Your task to perform on an android device: Open Youtube and go to the subscriptions tab Image 0: 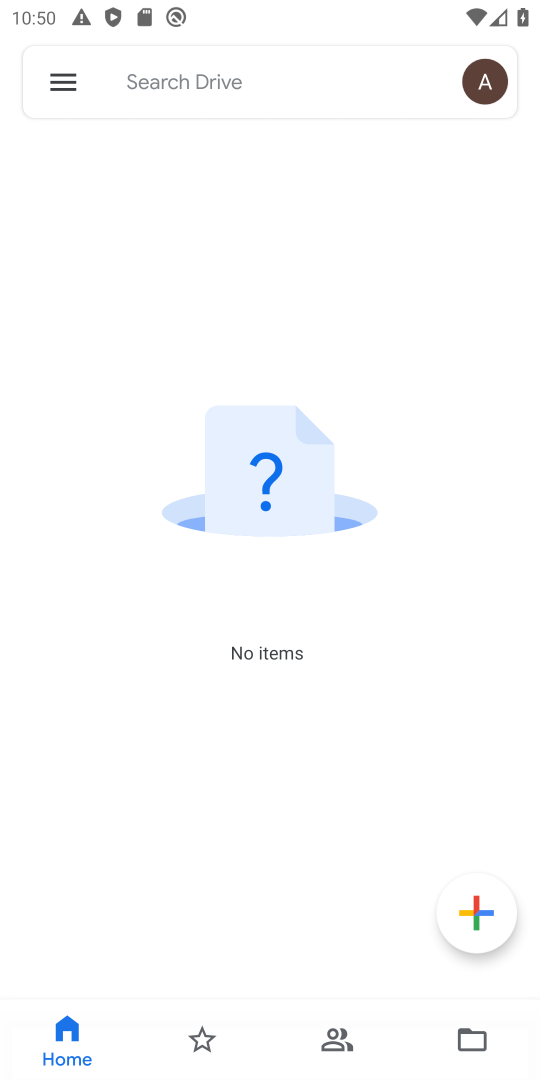
Step 0: press home button
Your task to perform on an android device: Open Youtube and go to the subscriptions tab Image 1: 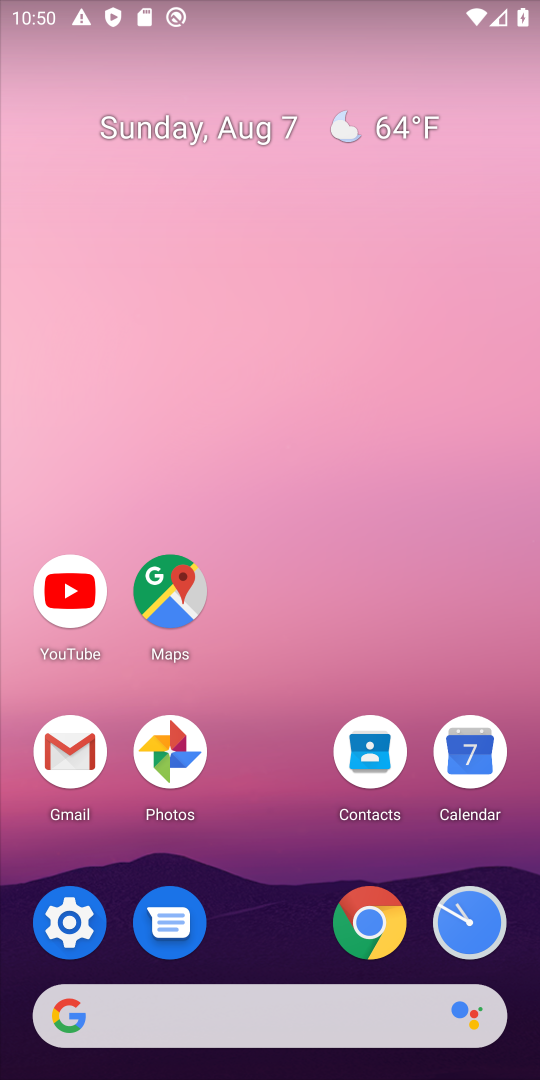
Step 1: click (51, 578)
Your task to perform on an android device: Open Youtube and go to the subscriptions tab Image 2: 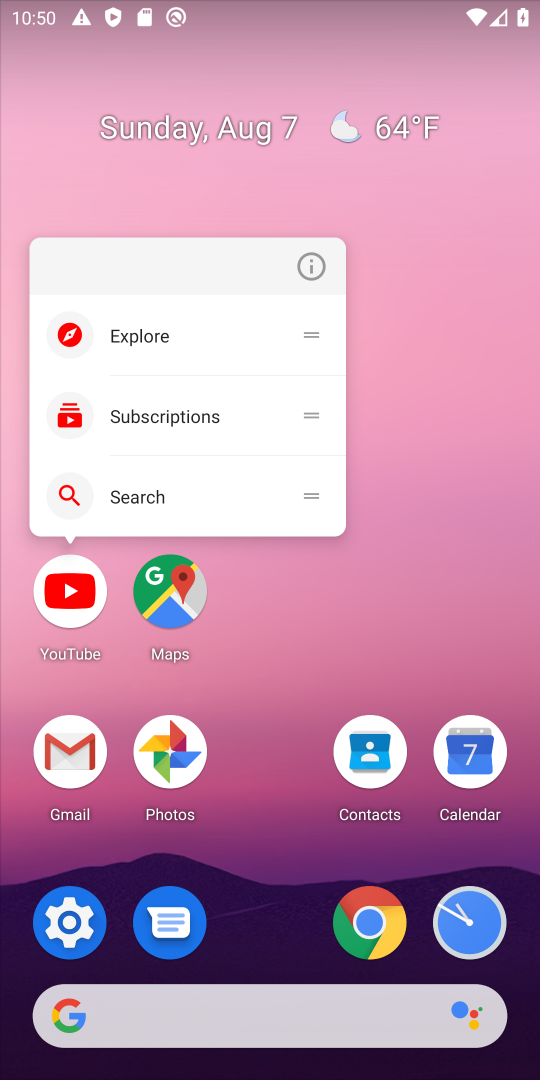
Step 2: click (56, 583)
Your task to perform on an android device: Open Youtube and go to the subscriptions tab Image 3: 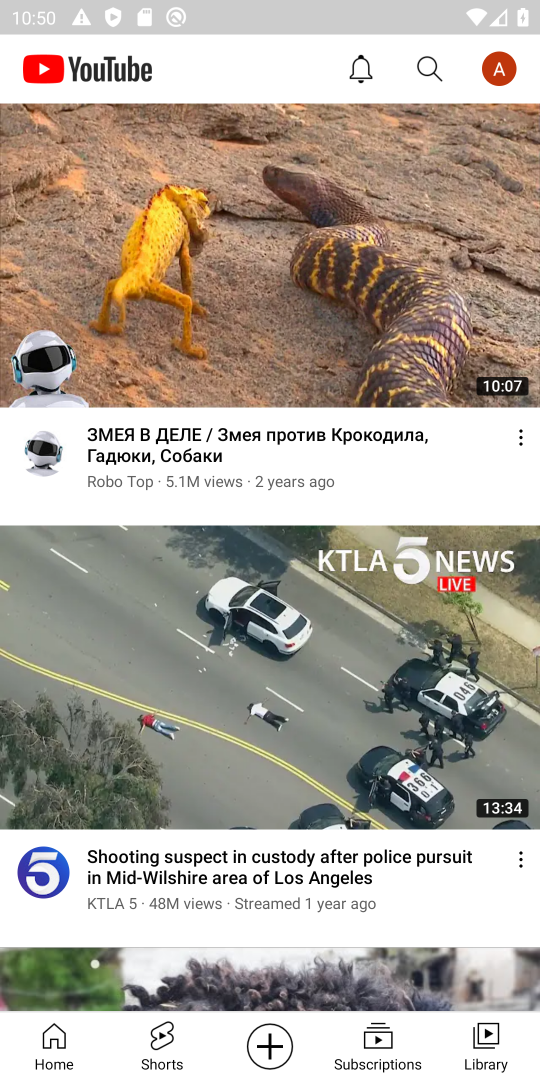
Step 3: click (378, 1035)
Your task to perform on an android device: Open Youtube and go to the subscriptions tab Image 4: 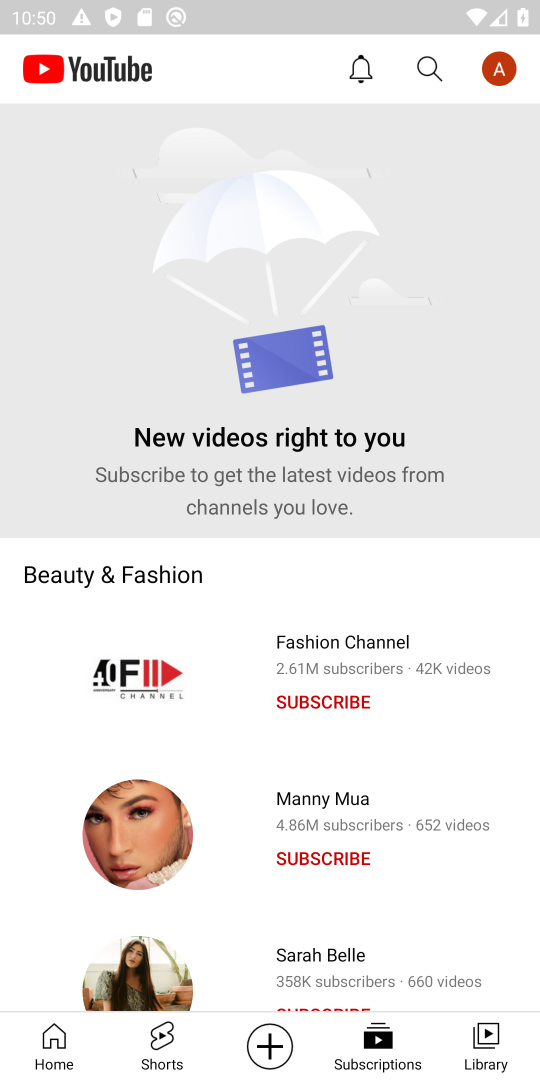
Step 4: task complete